Your task to perform on an android device: Go to Google Image 0: 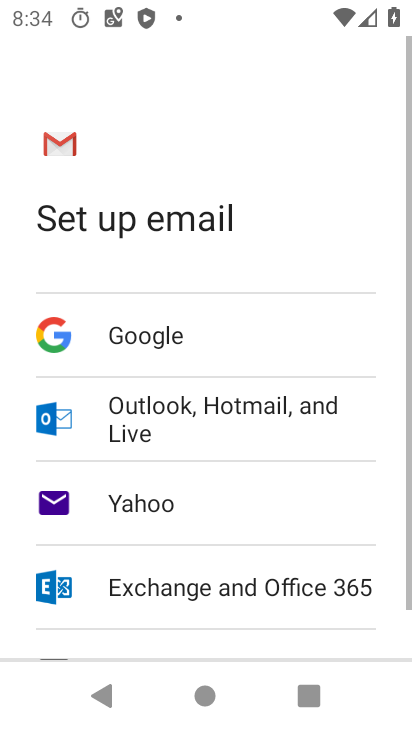
Step 0: press home button
Your task to perform on an android device: Go to Google Image 1: 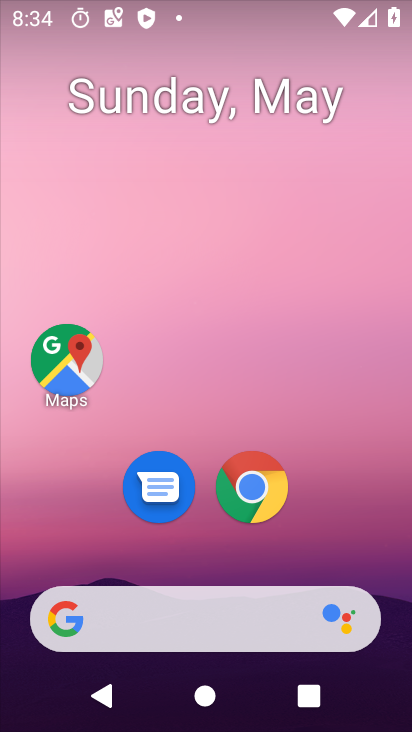
Step 1: drag from (29, 578) to (268, 94)
Your task to perform on an android device: Go to Google Image 2: 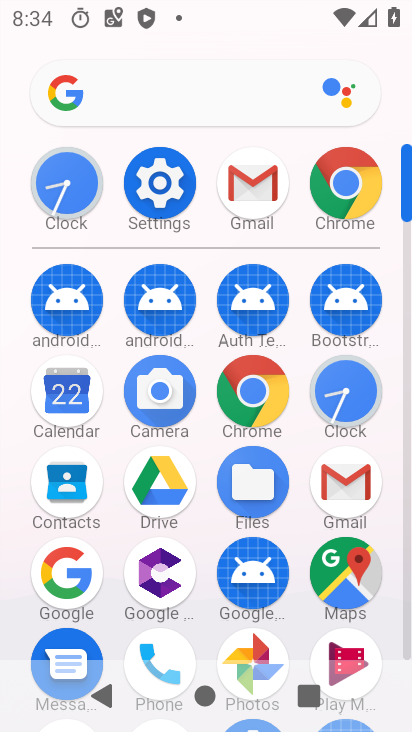
Step 2: click (54, 566)
Your task to perform on an android device: Go to Google Image 3: 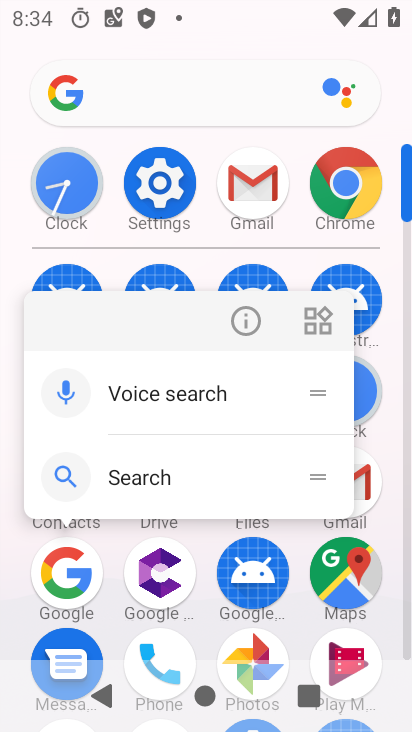
Step 3: click (54, 584)
Your task to perform on an android device: Go to Google Image 4: 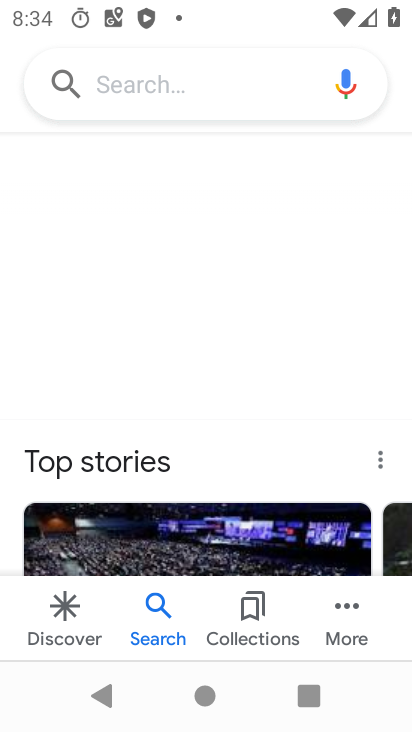
Step 4: task complete